Your task to perform on an android device: Search for the best-rated coffee table on Crate & Barrel Image 0: 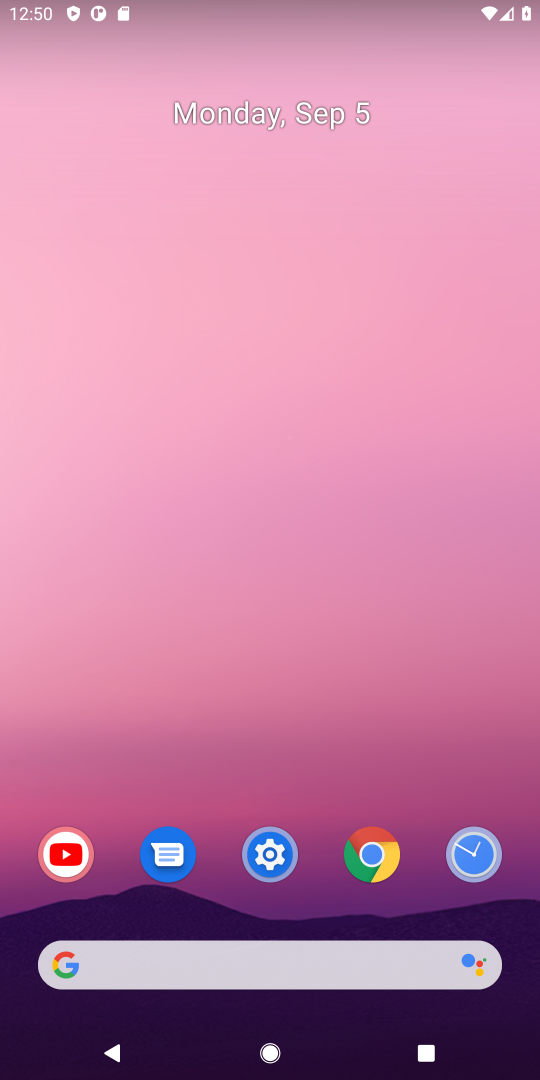
Step 0: click (328, 955)
Your task to perform on an android device: Search for the best-rated coffee table on Crate & Barrel Image 1: 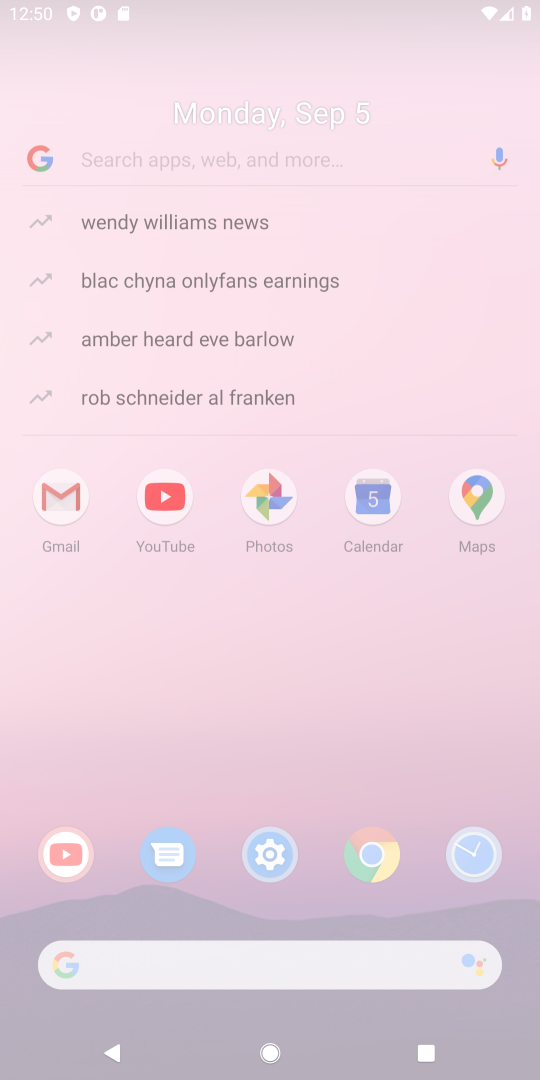
Step 1: click (315, 955)
Your task to perform on an android device: Search for the best-rated coffee table on Crate & Barrel Image 2: 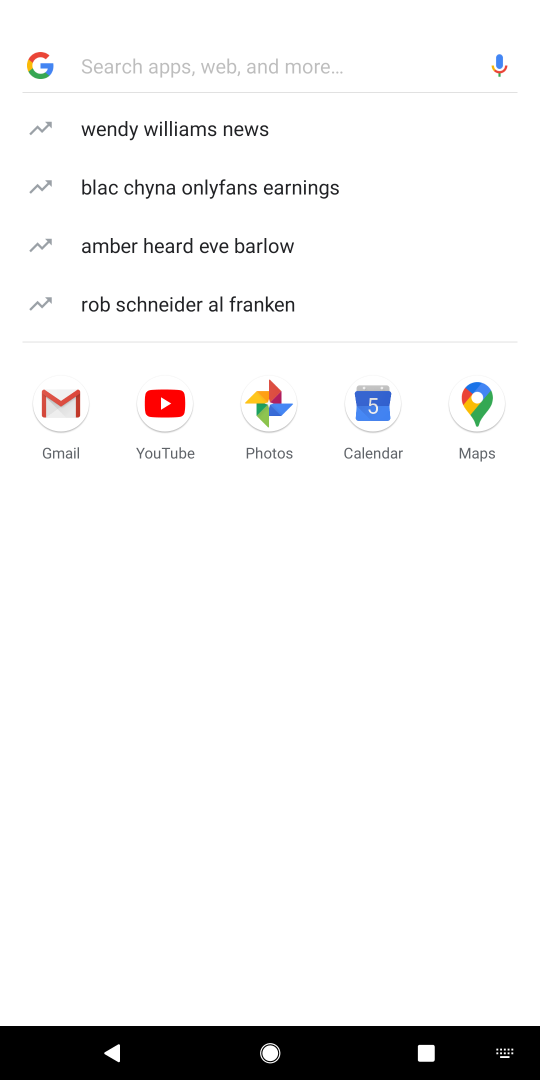
Step 2: type "Crate & Barrel"
Your task to perform on an android device: Search for the best-rated coffee table on Crate & Barrel Image 3: 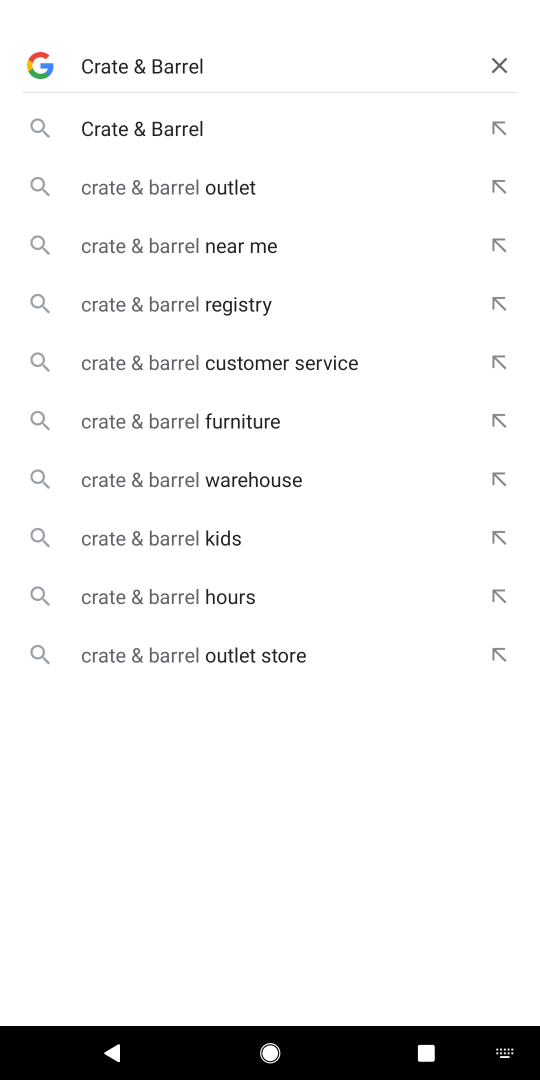
Step 3: click (154, 124)
Your task to perform on an android device: Search for the best-rated coffee table on Crate & Barrel Image 4: 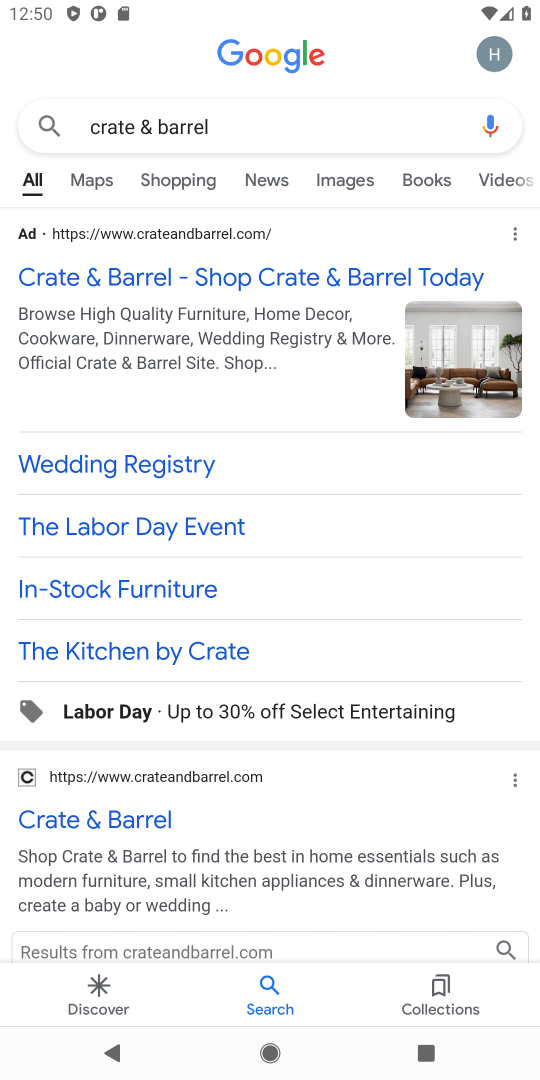
Step 4: click (97, 816)
Your task to perform on an android device: Search for the best-rated coffee table on Crate & Barrel Image 5: 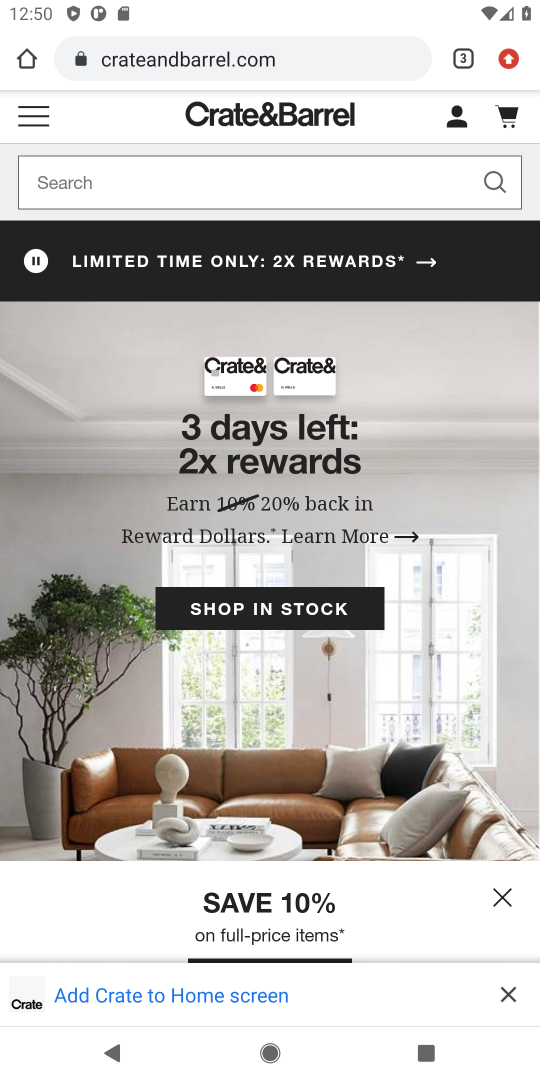
Step 5: click (245, 169)
Your task to perform on an android device: Search for the best-rated coffee table on Crate & Barrel Image 6: 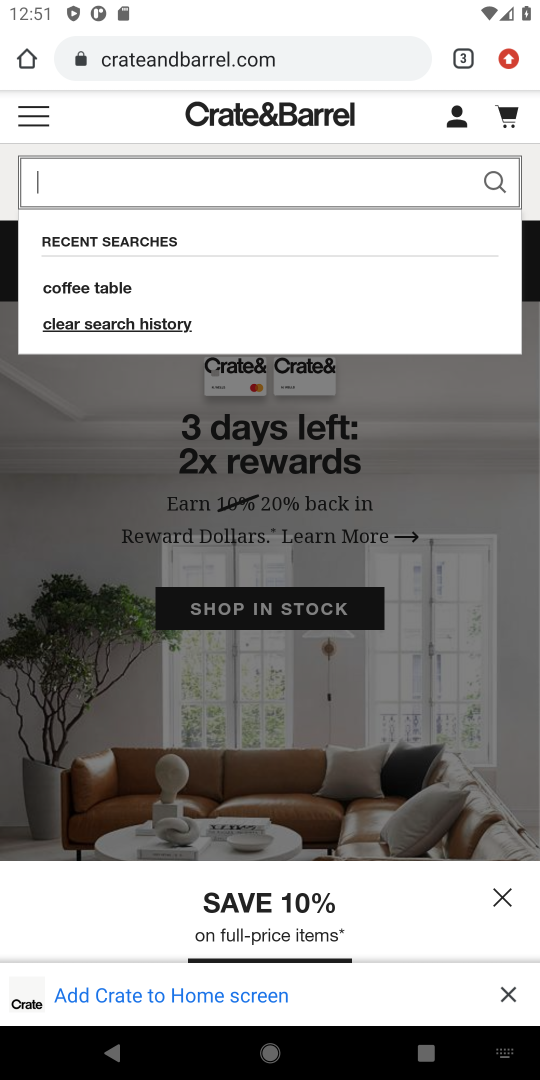
Step 6: type "coffee table"
Your task to perform on an android device: Search for the best-rated coffee table on Crate & Barrel Image 7: 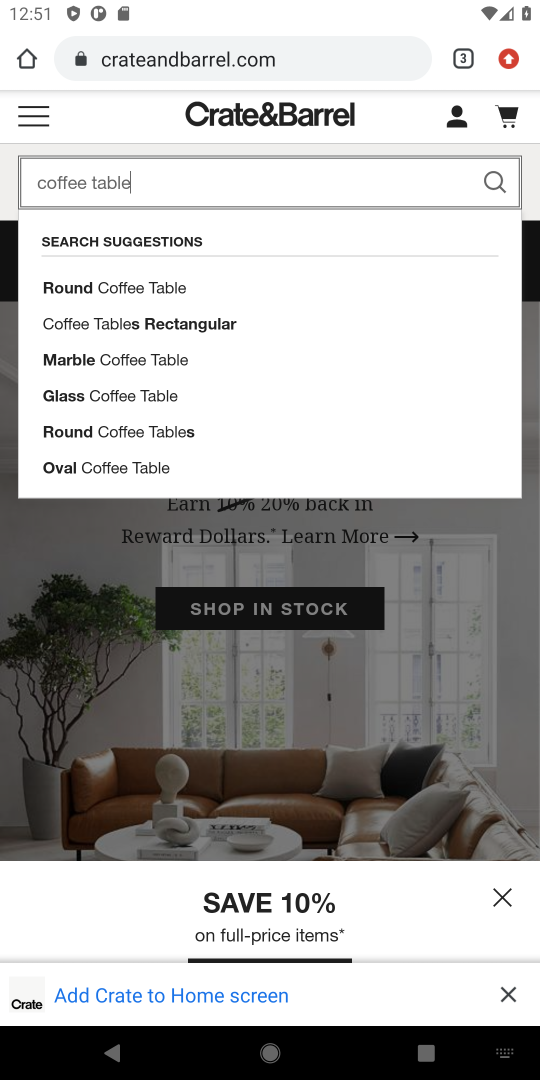
Step 7: click (503, 191)
Your task to perform on an android device: Search for the best-rated coffee table on Crate & Barrel Image 8: 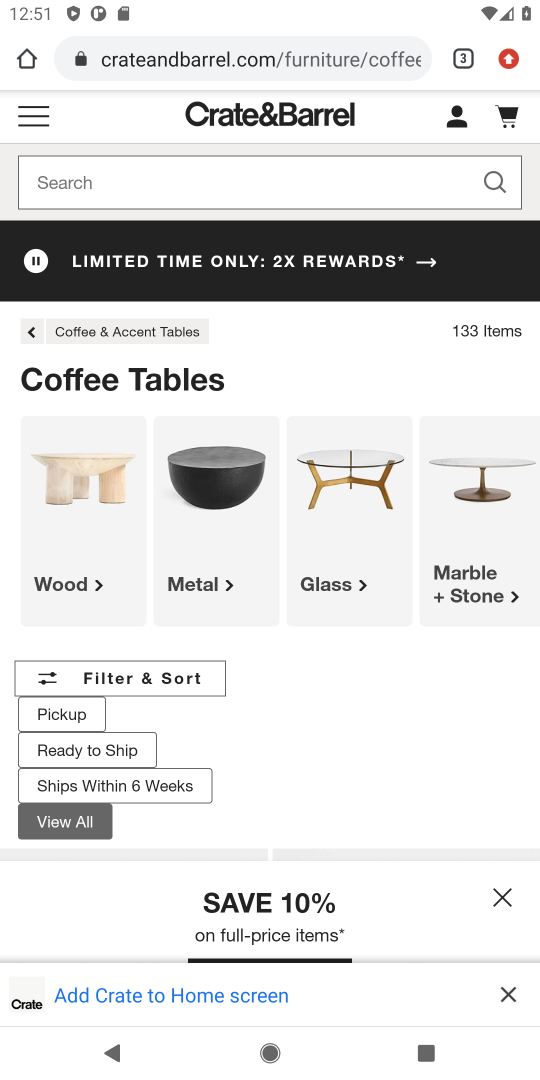
Step 8: task complete